Your task to perform on an android device: change notifications settings Image 0: 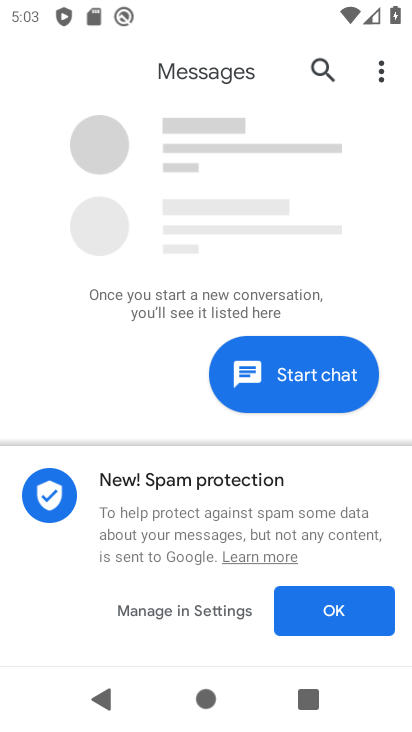
Step 0: press home button
Your task to perform on an android device: change notifications settings Image 1: 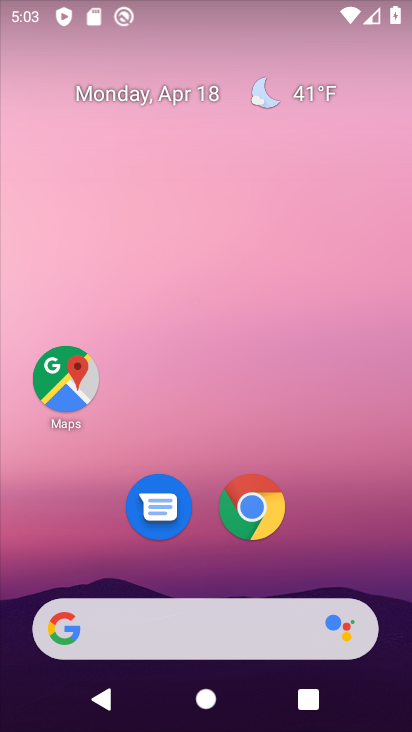
Step 1: drag from (315, 547) to (281, 8)
Your task to perform on an android device: change notifications settings Image 2: 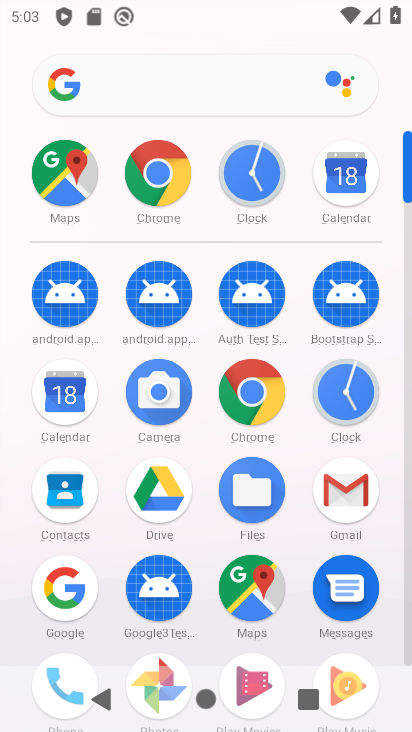
Step 2: drag from (205, 611) to (209, 219)
Your task to perform on an android device: change notifications settings Image 3: 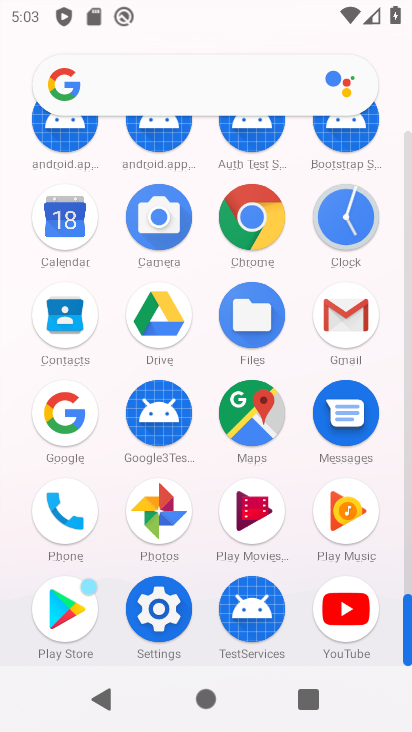
Step 3: click (169, 607)
Your task to perform on an android device: change notifications settings Image 4: 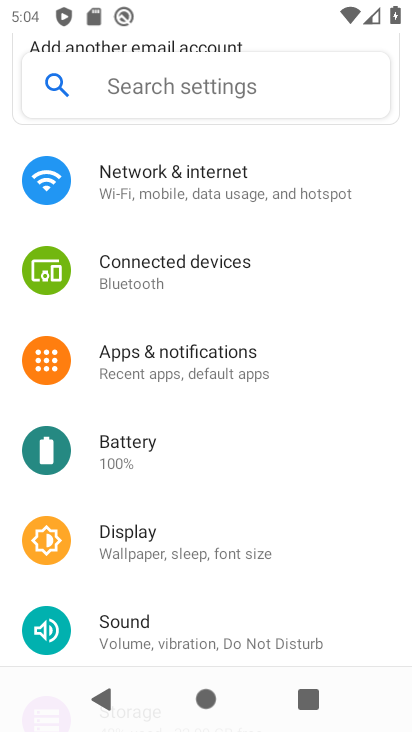
Step 4: click (228, 370)
Your task to perform on an android device: change notifications settings Image 5: 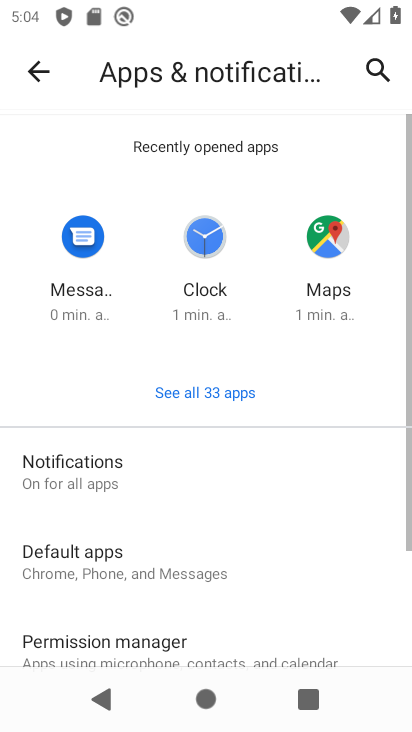
Step 5: drag from (254, 566) to (268, 258)
Your task to perform on an android device: change notifications settings Image 6: 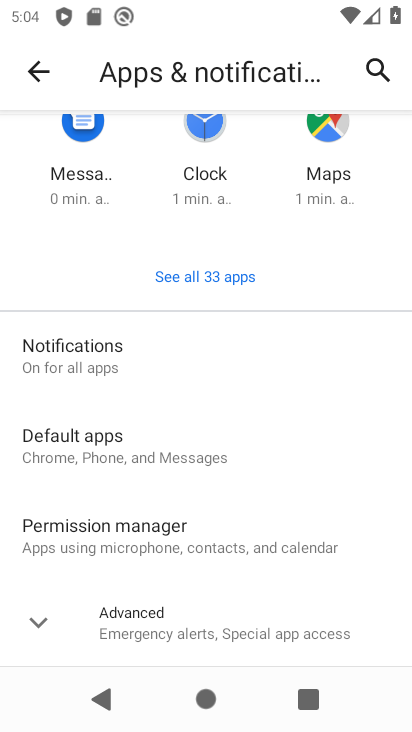
Step 6: click (117, 358)
Your task to perform on an android device: change notifications settings Image 7: 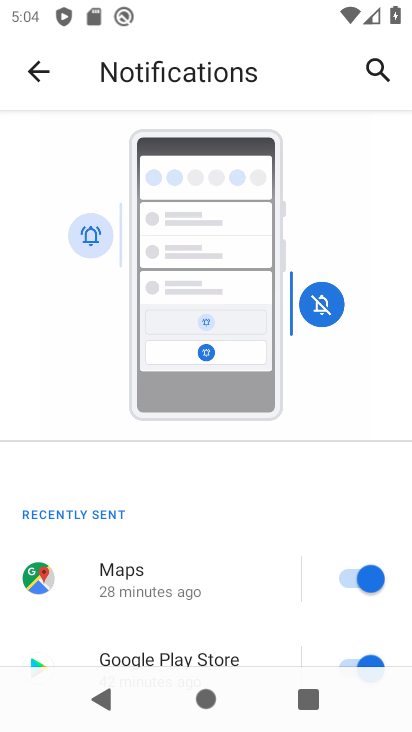
Step 7: click (356, 576)
Your task to perform on an android device: change notifications settings Image 8: 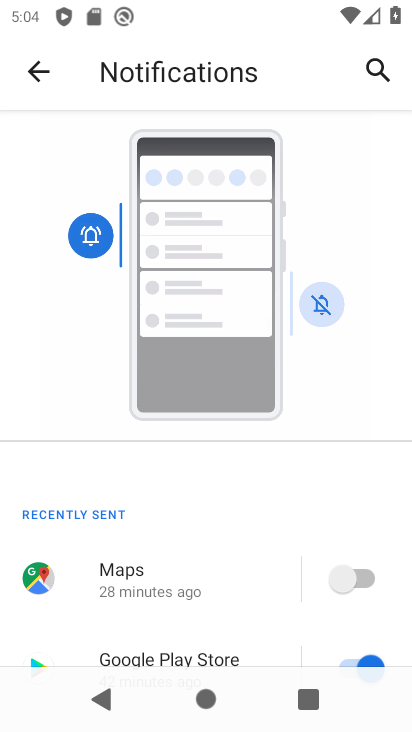
Step 8: drag from (303, 544) to (327, 105)
Your task to perform on an android device: change notifications settings Image 9: 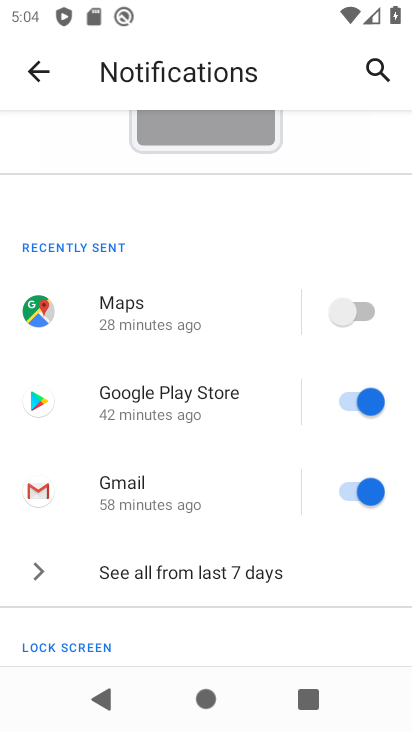
Step 9: click (351, 395)
Your task to perform on an android device: change notifications settings Image 10: 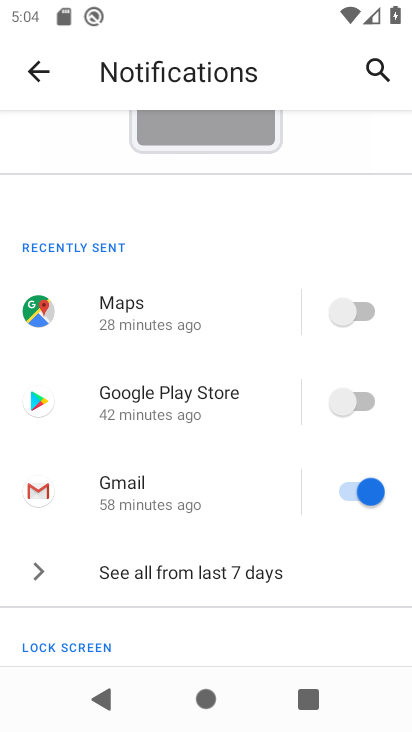
Step 10: click (348, 489)
Your task to perform on an android device: change notifications settings Image 11: 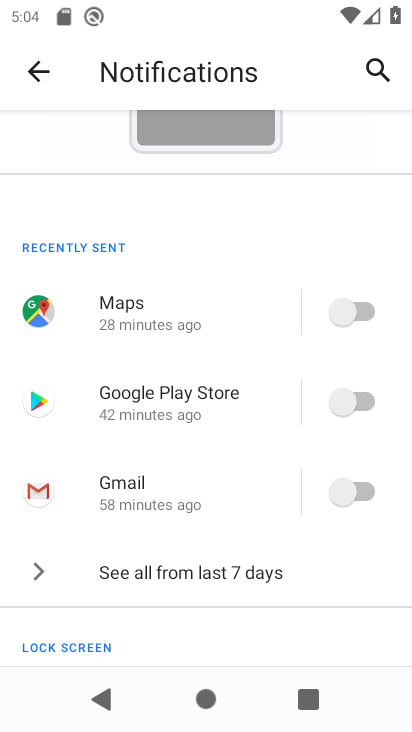
Step 11: task complete